Your task to perform on an android device: toggle notification dots Image 0: 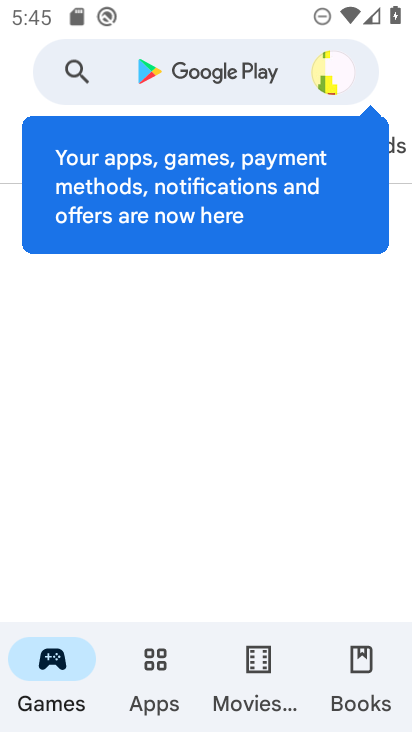
Step 0: press home button
Your task to perform on an android device: toggle notification dots Image 1: 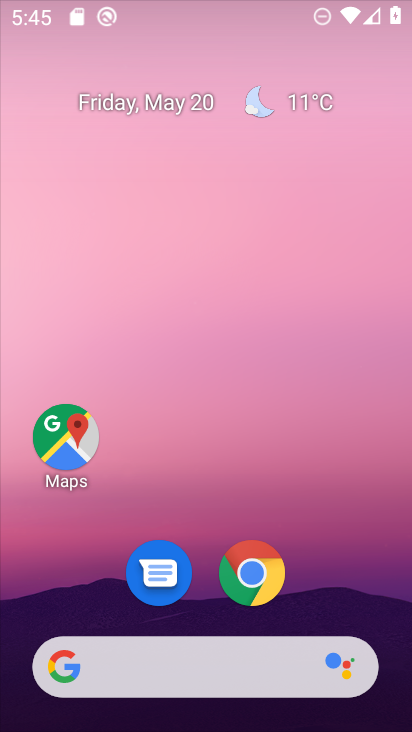
Step 1: drag from (331, 528) to (124, 68)
Your task to perform on an android device: toggle notification dots Image 2: 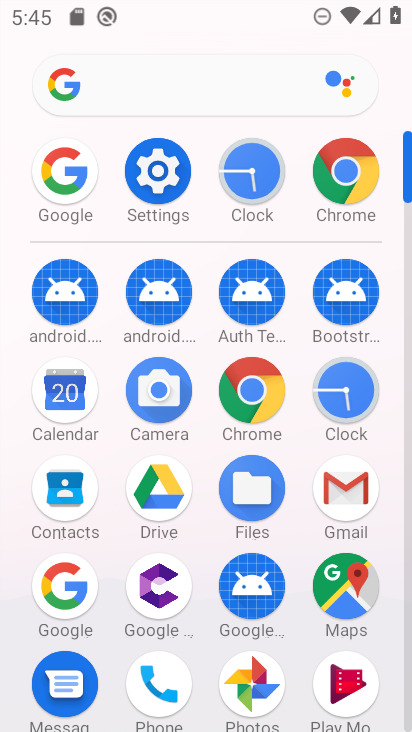
Step 2: click (157, 175)
Your task to perform on an android device: toggle notification dots Image 3: 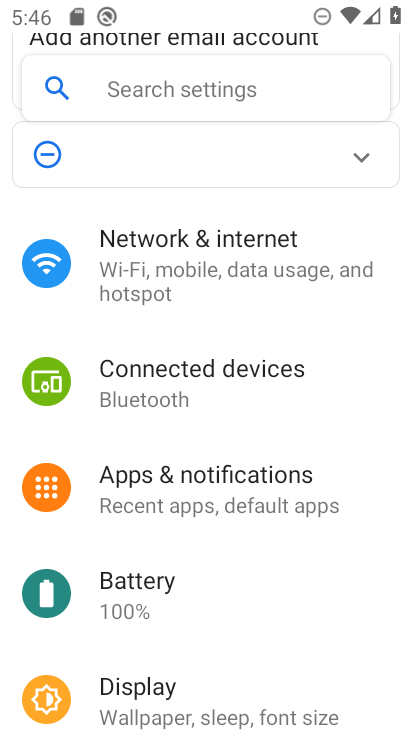
Step 3: click (217, 488)
Your task to perform on an android device: toggle notification dots Image 4: 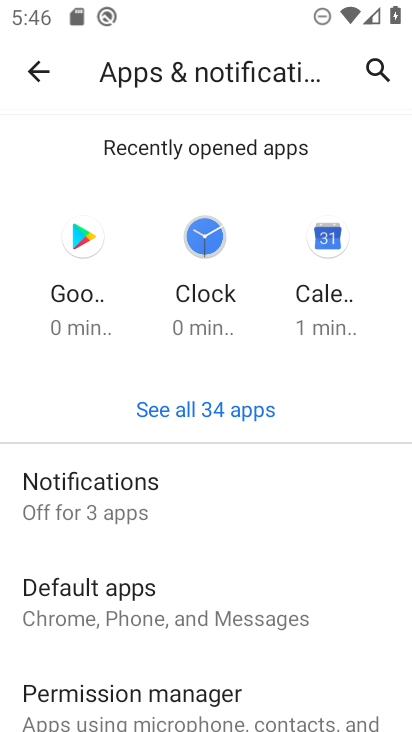
Step 4: click (163, 504)
Your task to perform on an android device: toggle notification dots Image 5: 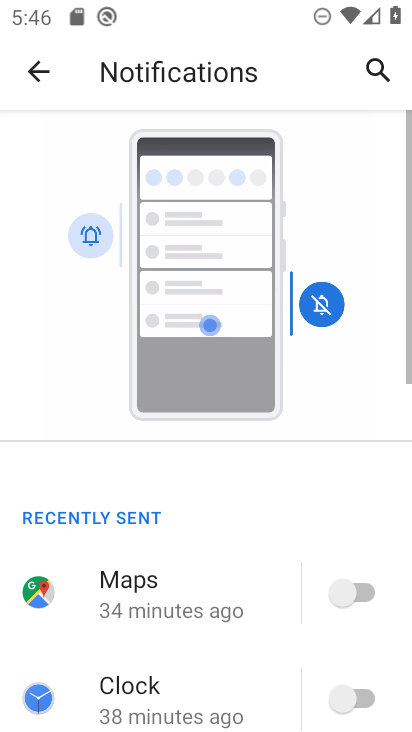
Step 5: drag from (225, 595) to (203, 249)
Your task to perform on an android device: toggle notification dots Image 6: 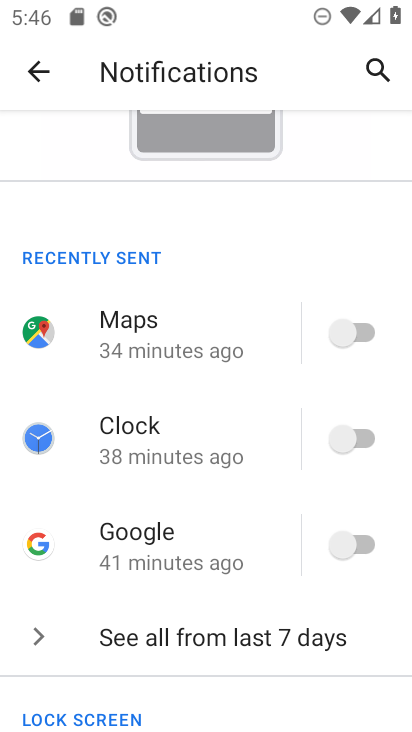
Step 6: drag from (214, 493) to (177, 221)
Your task to perform on an android device: toggle notification dots Image 7: 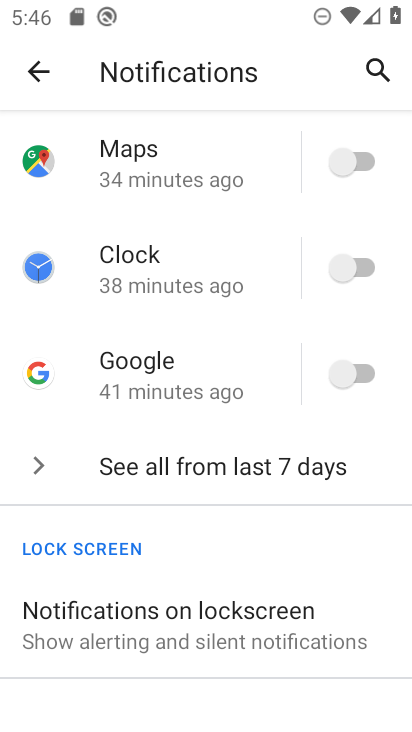
Step 7: drag from (223, 565) to (185, 172)
Your task to perform on an android device: toggle notification dots Image 8: 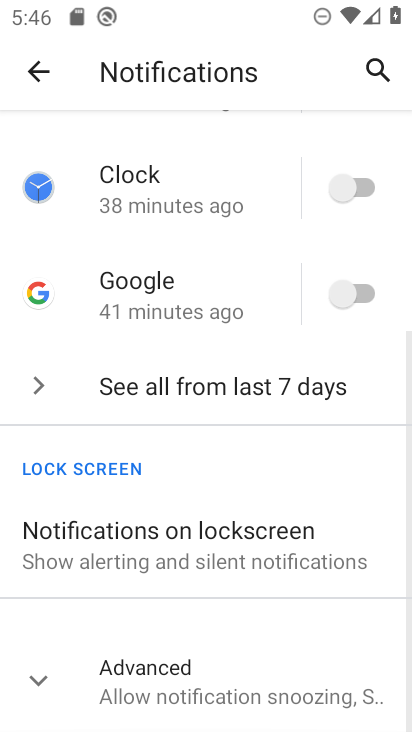
Step 8: click (222, 663)
Your task to perform on an android device: toggle notification dots Image 9: 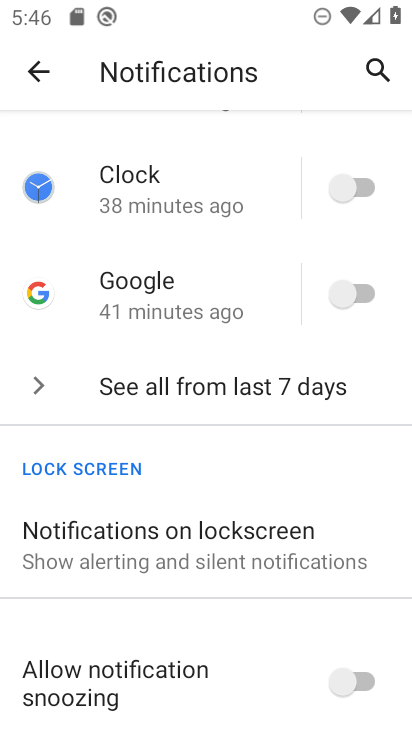
Step 9: drag from (232, 668) to (205, 125)
Your task to perform on an android device: toggle notification dots Image 10: 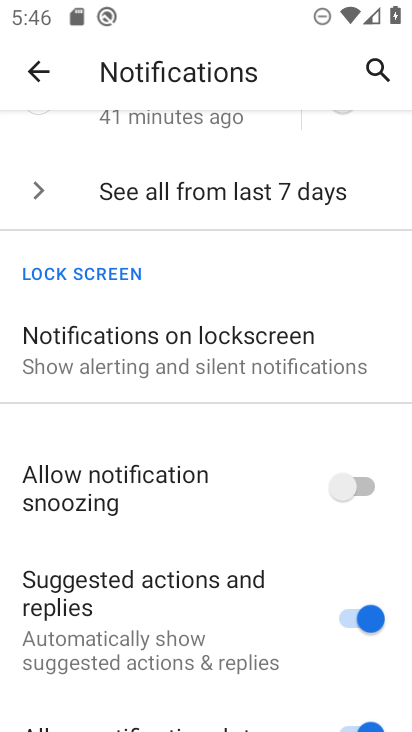
Step 10: drag from (299, 665) to (243, 342)
Your task to perform on an android device: toggle notification dots Image 11: 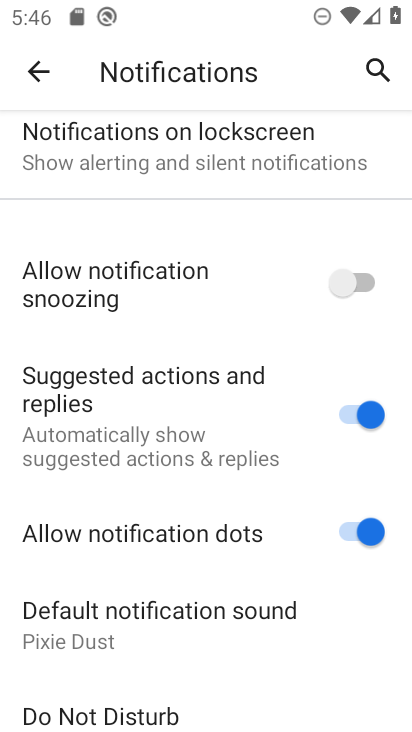
Step 11: click (350, 526)
Your task to perform on an android device: toggle notification dots Image 12: 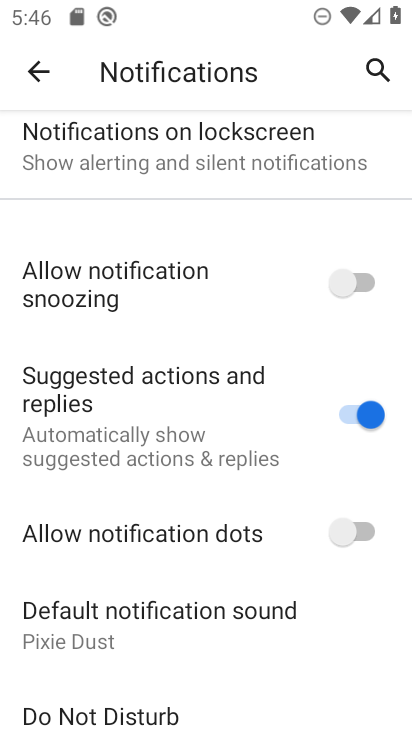
Step 12: task complete